Your task to perform on an android device: What's on my calendar tomorrow? Image 0: 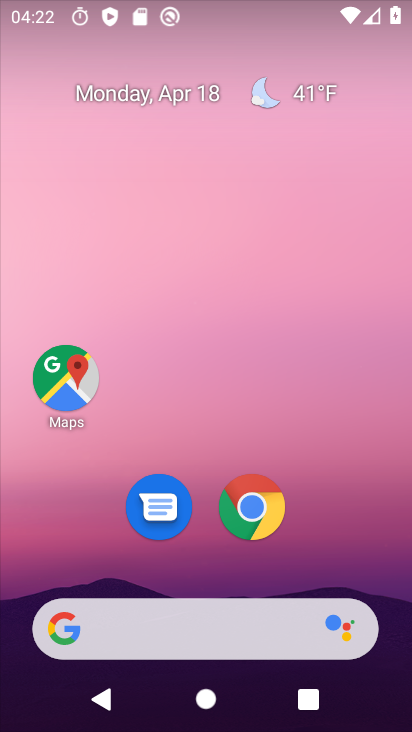
Step 0: drag from (343, 552) to (368, 79)
Your task to perform on an android device: What's on my calendar tomorrow? Image 1: 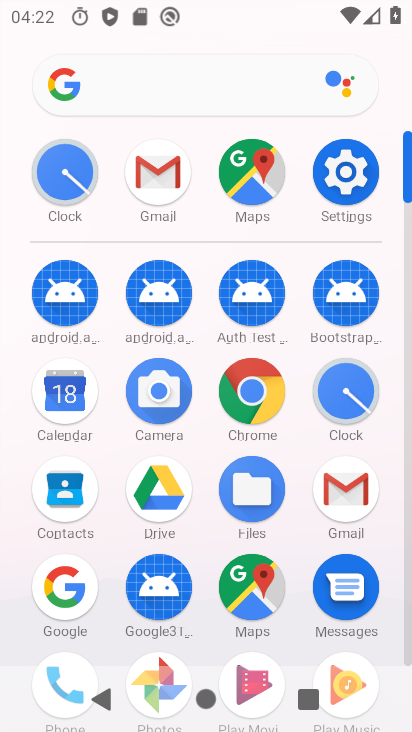
Step 1: click (72, 392)
Your task to perform on an android device: What's on my calendar tomorrow? Image 2: 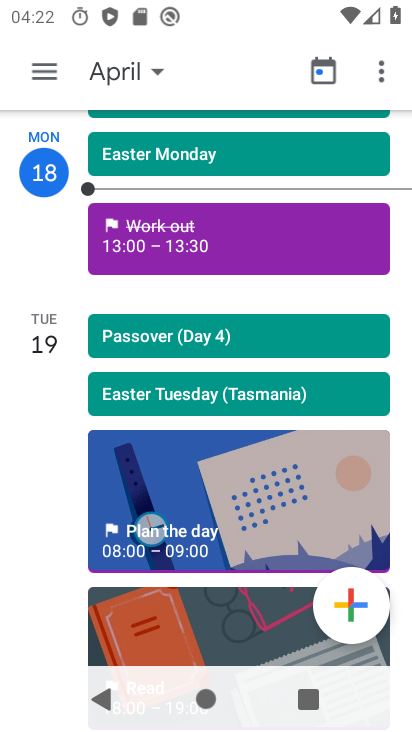
Step 2: click (122, 85)
Your task to perform on an android device: What's on my calendar tomorrow? Image 3: 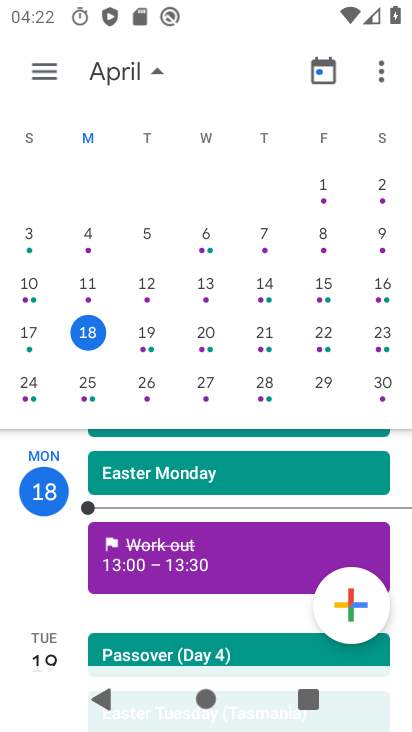
Step 3: click (155, 342)
Your task to perform on an android device: What's on my calendar tomorrow? Image 4: 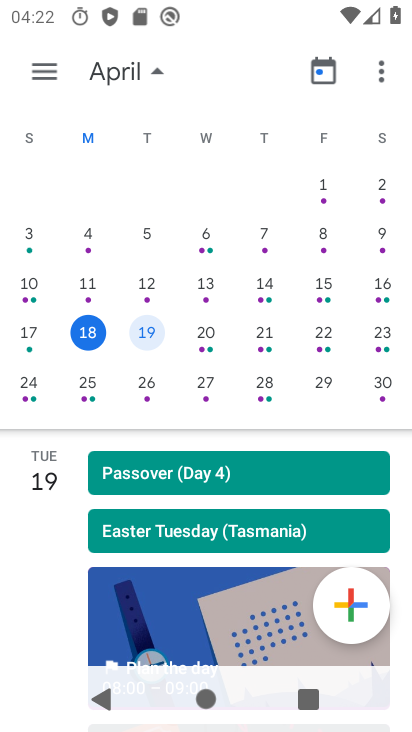
Step 4: task complete